Your task to perform on an android device: turn off translation in the chrome app Image 0: 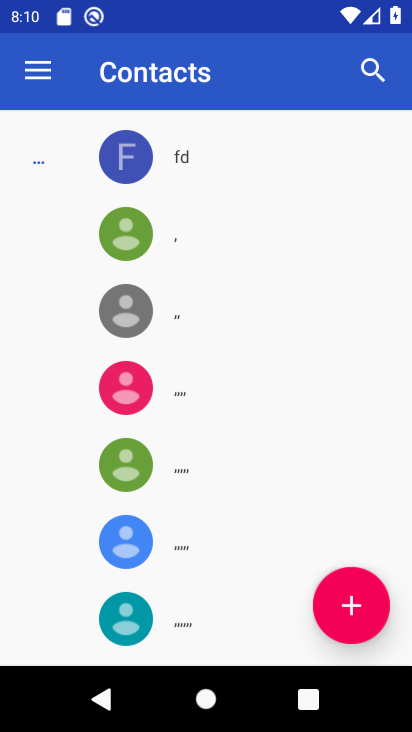
Step 0: drag from (268, 241) to (284, 59)
Your task to perform on an android device: turn off translation in the chrome app Image 1: 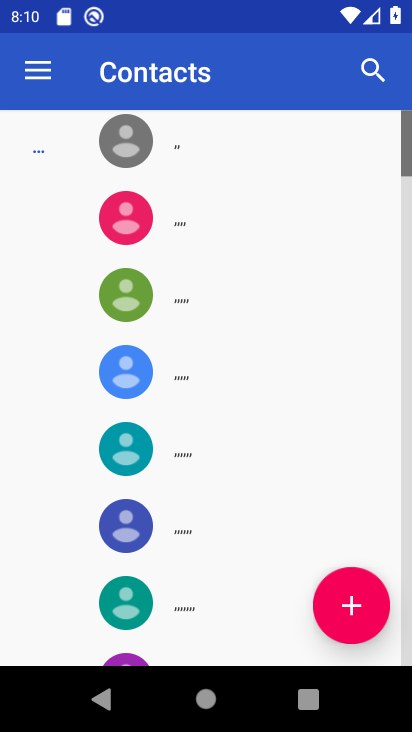
Step 1: press home button
Your task to perform on an android device: turn off translation in the chrome app Image 2: 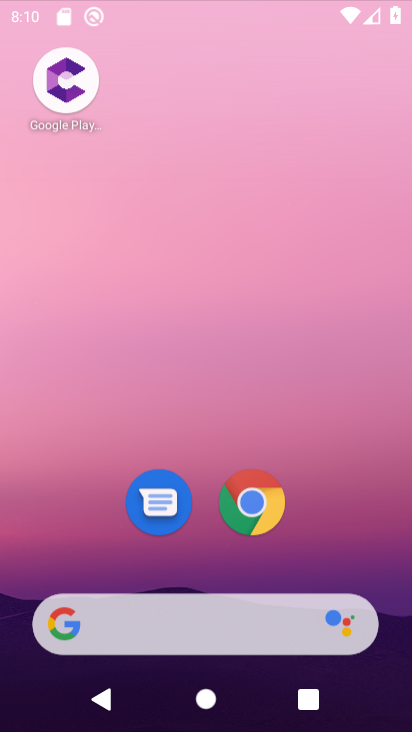
Step 2: drag from (238, 594) to (343, 1)
Your task to perform on an android device: turn off translation in the chrome app Image 3: 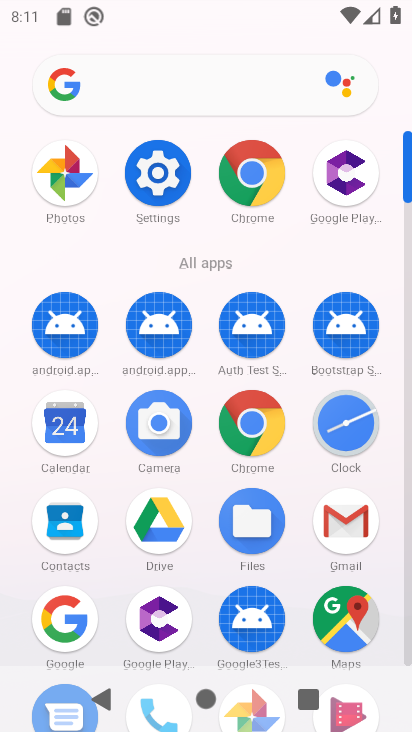
Step 3: click (256, 417)
Your task to perform on an android device: turn off translation in the chrome app Image 4: 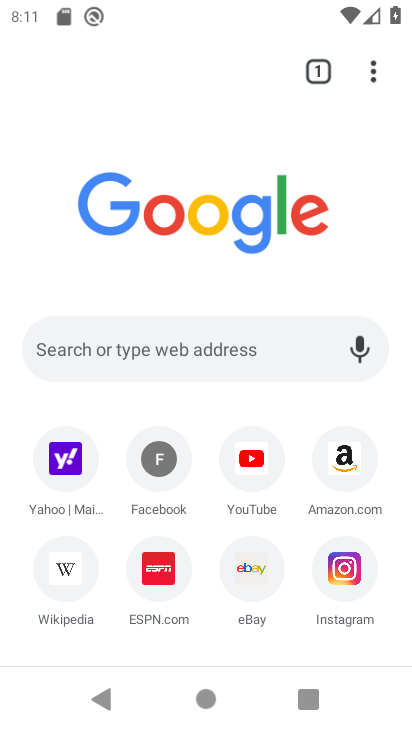
Step 4: drag from (209, 433) to (237, 153)
Your task to perform on an android device: turn off translation in the chrome app Image 5: 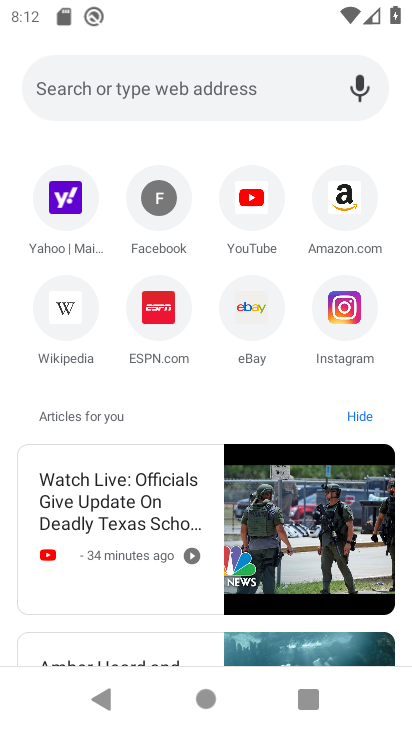
Step 5: drag from (191, 637) to (334, 116)
Your task to perform on an android device: turn off translation in the chrome app Image 6: 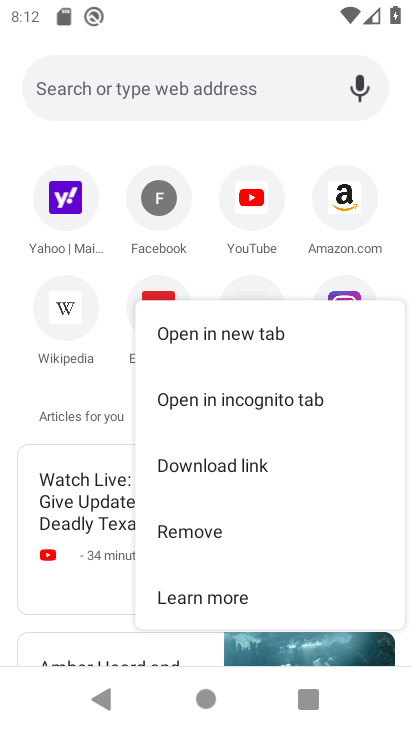
Step 6: click (210, 135)
Your task to perform on an android device: turn off translation in the chrome app Image 7: 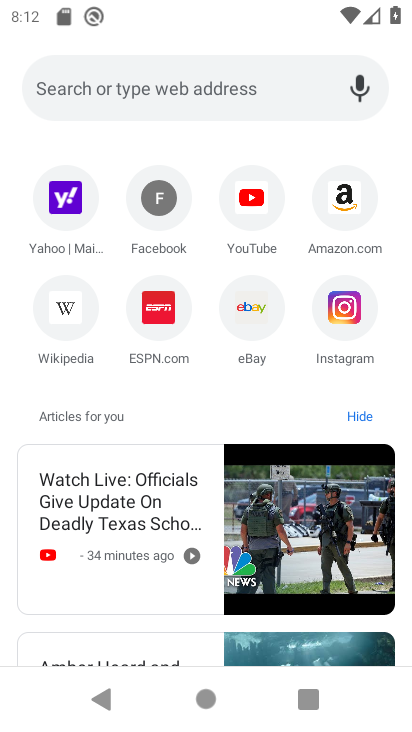
Step 7: drag from (308, 137) to (302, 456)
Your task to perform on an android device: turn off translation in the chrome app Image 8: 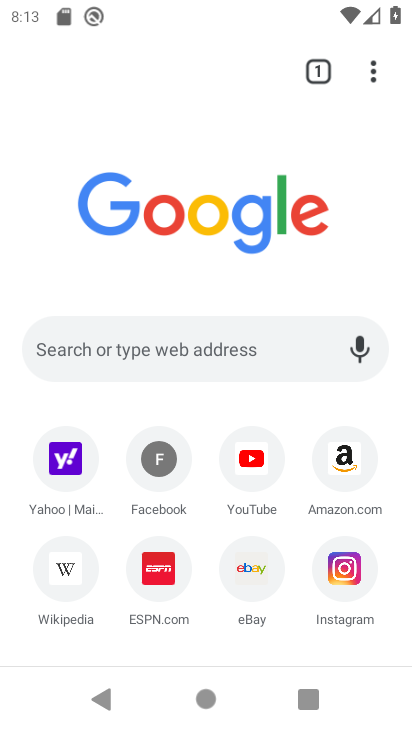
Step 8: drag from (211, 508) to (317, 146)
Your task to perform on an android device: turn off translation in the chrome app Image 9: 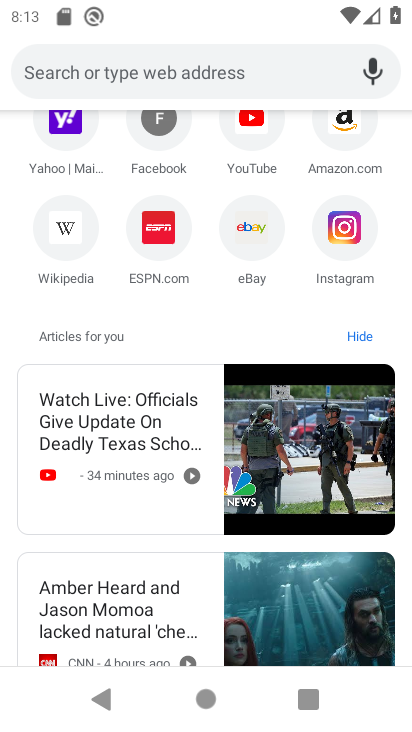
Step 9: drag from (196, 167) to (231, 404)
Your task to perform on an android device: turn off translation in the chrome app Image 10: 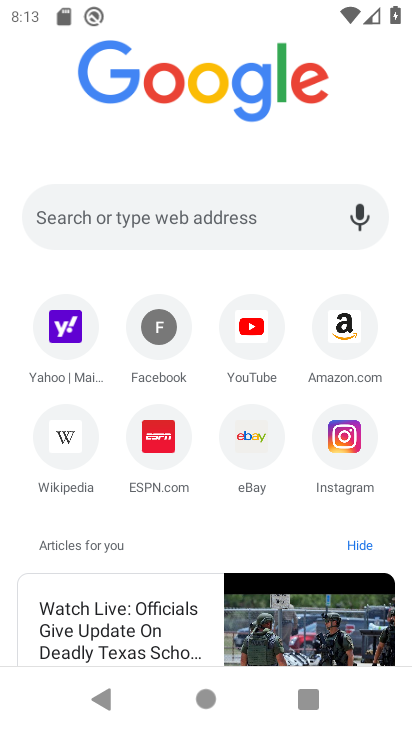
Step 10: drag from (233, 431) to (296, 37)
Your task to perform on an android device: turn off translation in the chrome app Image 11: 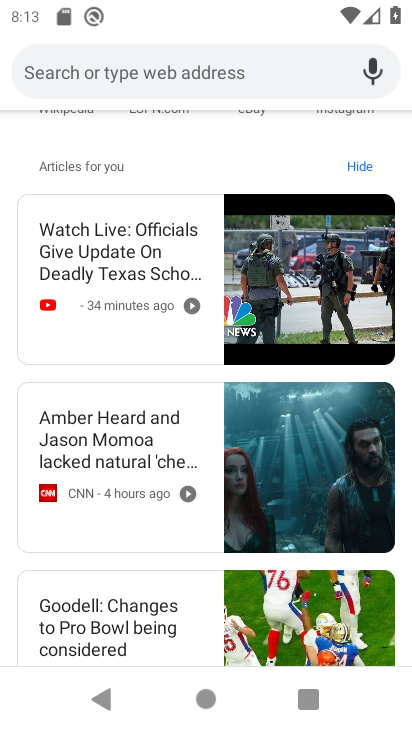
Step 11: drag from (220, 169) to (249, 571)
Your task to perform on an android device: turn off translation in the chrome app Image 12: 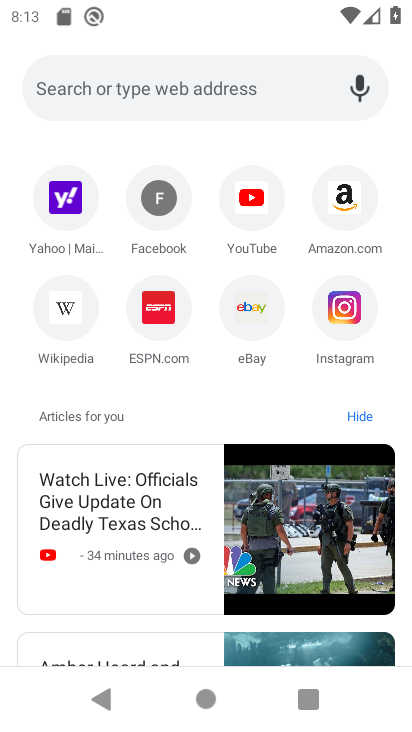
Step 12: drag from (292, 162) to (407, 104)
Your task to perform on an android device: turn off translation in the chrome app Image 13: 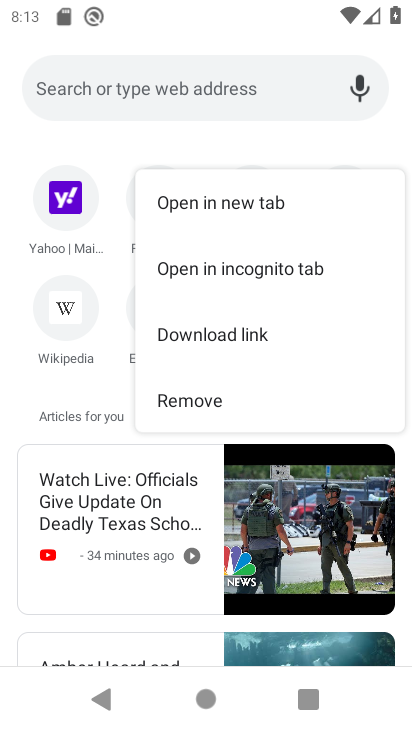
Step 13: click (127, 134)
Your task to perform on an android device: turn off translation in the chrome app Image 14: 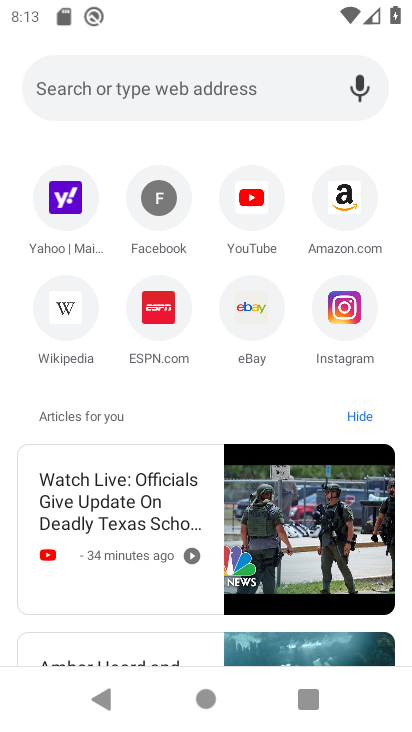
Step 14: drag from (90, 144) to (205, 605)
Your task to perform on an android device: turn off translation in the chrome app Image 15: 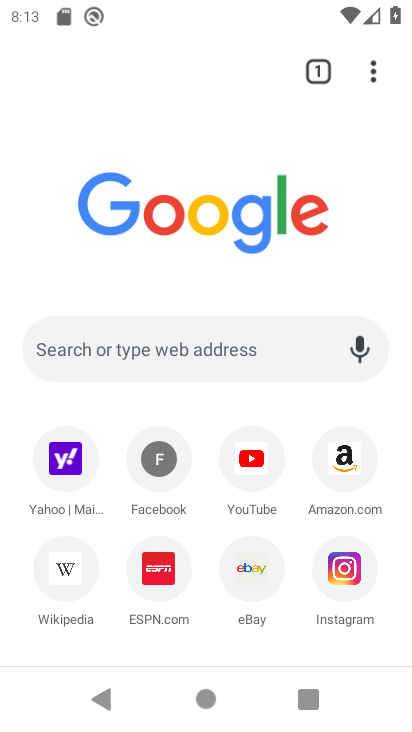
Step 15: click (366, 74)
Your task to perform on an android device: turn off translation in the chrome app Image 16: 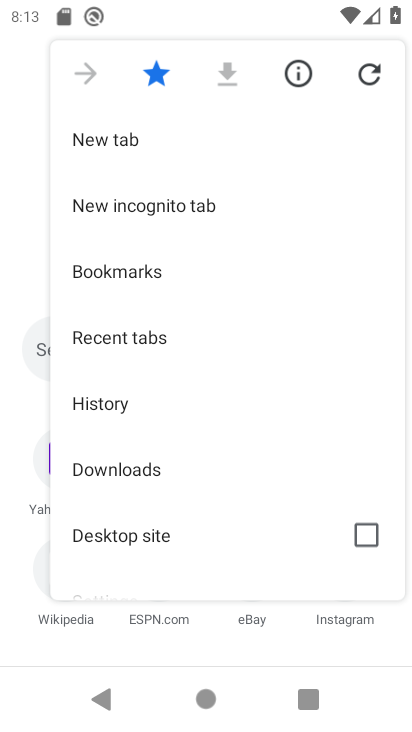
Step 16: drag from (177, 542) to (285, 11)
Your task to perform on an android device: turn off translation in the chrome app Image 17: 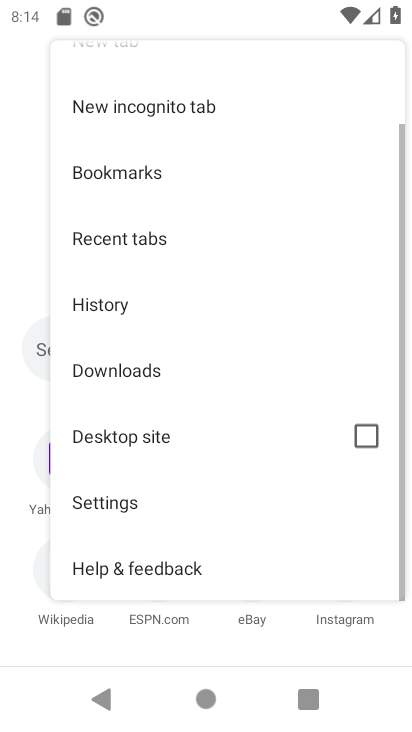
Step 17: click (113, 508)
Your task to perform on an android device: turn off translation in the chrome app Image 18: 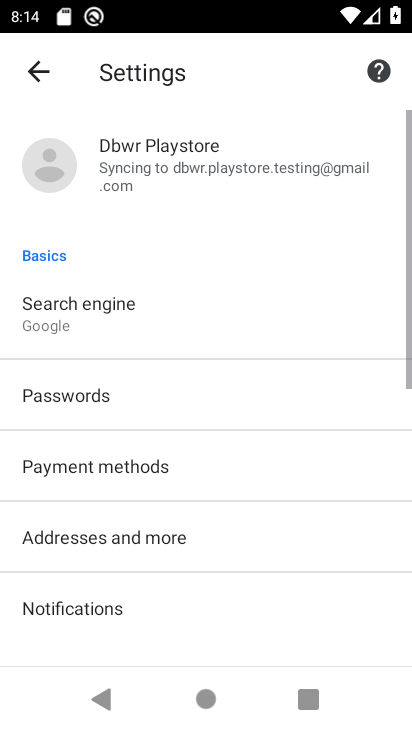
Step 18: drag from (163, 581) to (293, 209)
Your task to perform on an android device: turn off translation in the chrome app Image 19: 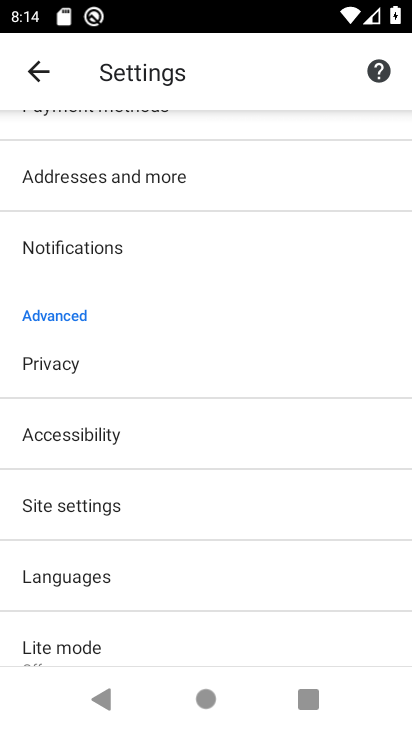
Step 19: drag from (166, 640) to (276, 231)
Your task to perform on an android device: turn off translation in the chrome app Image 20: 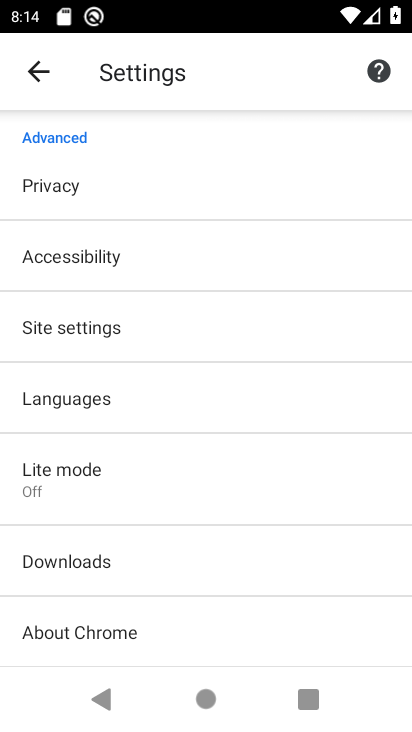
Step 20: click (135, 399)
Your task to perform on an android device: turn off translation in the chrome app Image 21: 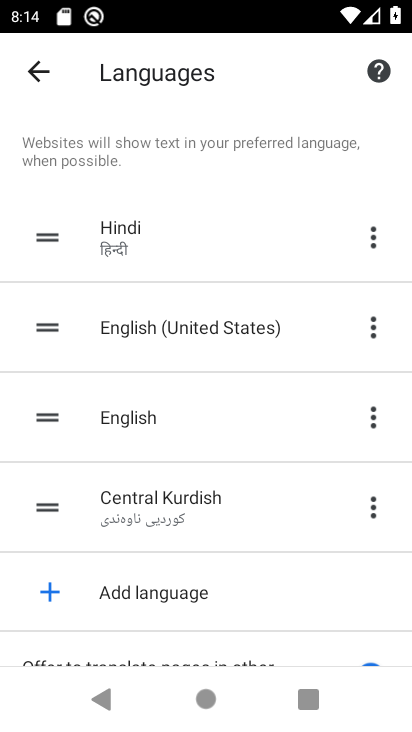
Step 21: drag from (260, 551) to (411, 64)
Your task to perform on an android device: turn off translation in the chrome app Image 22: 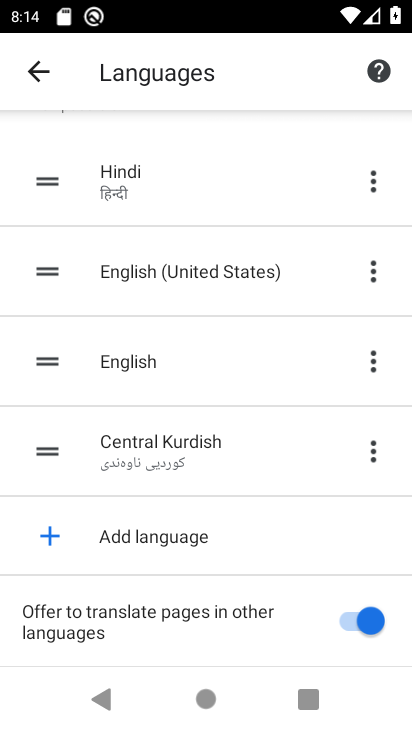
Step 22: drag from (248, 601) to (390, 210)
Your task to perform on an android device: turn off translation in the chrome app Image 23: 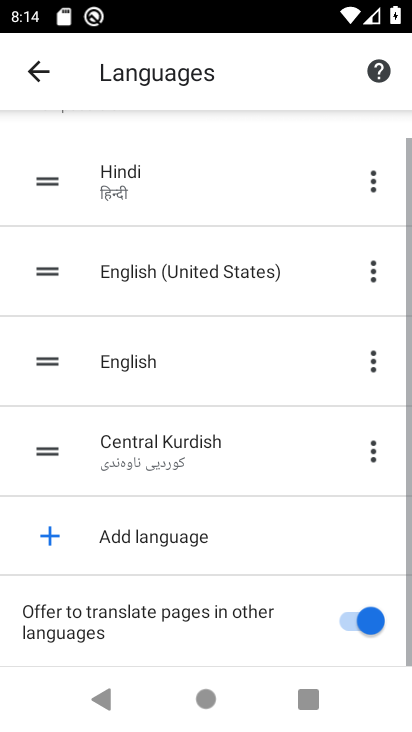
Step 23: click (361, 632)
Your task to perform on an android device: turn off translation in the chrome app Image 24: 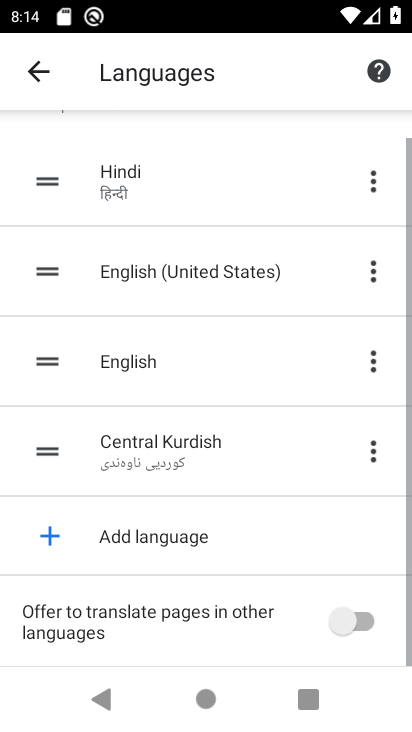
Step 24: task complete